Your task to perform on an android device: turn off location history Image 0: 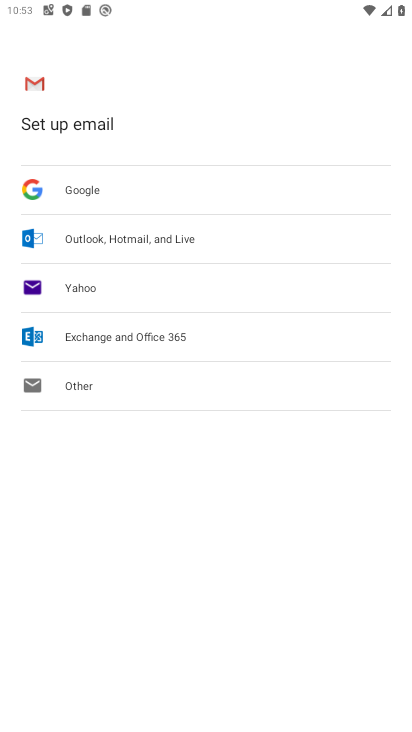
Step 0: press home button
Your task to perform on an android device: turn off location history Image 1: 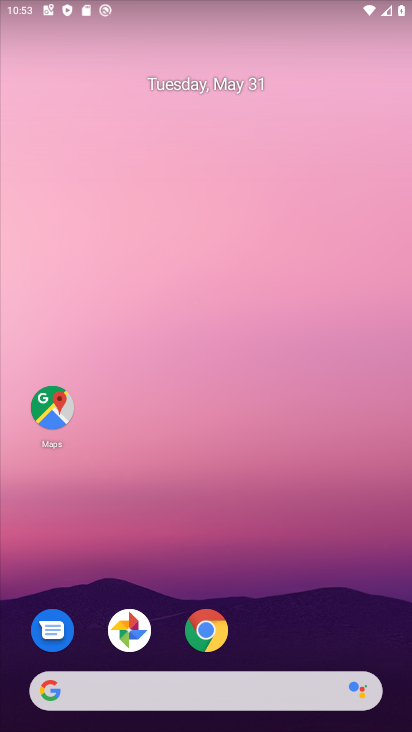
Step 1: drag from (238, 580) to (166, 106)
Your task to perform on an android device: turn off location history Image 2: 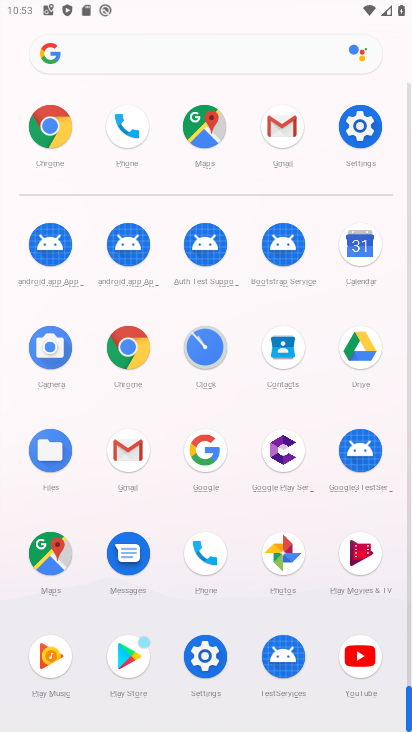
Step 2: click (121, 343)
Your task to perform on an android device: turn off location history Image 3: 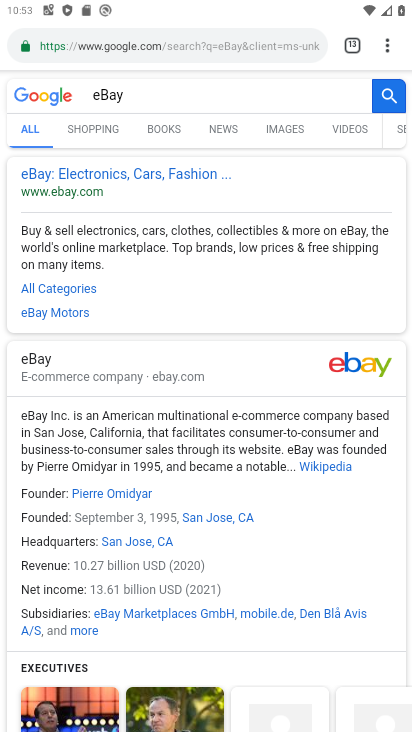
Step 3: click (394, 42)
Your task to perform on an android device: turn off location history Image 4: 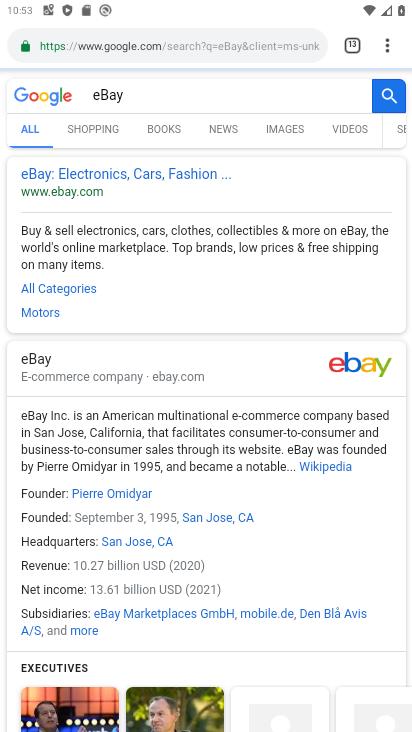
Step 4: click (388, 40)
Your task to perform on an android device: turn off location history Image 5: 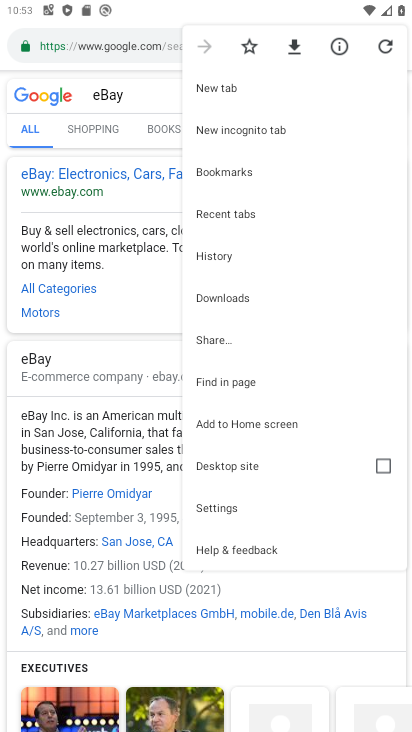
Step 5: click (250, 507)
Your task to perform on an android device: turn off location history Image 6: 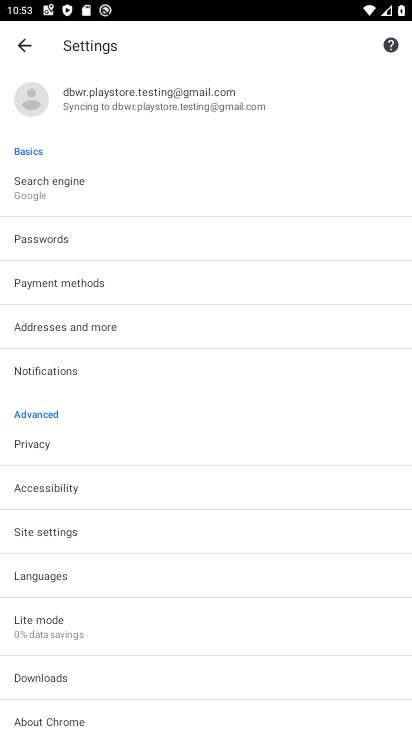
Step 6: click (78, 536)
Your task to perform on an android device: turn off location history Image 7: 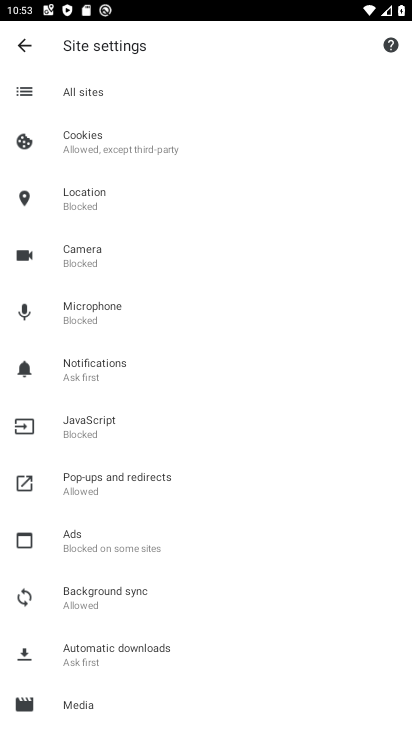
Step 7: press home button
Your task to perform on an android device: turn off location history Image 8: 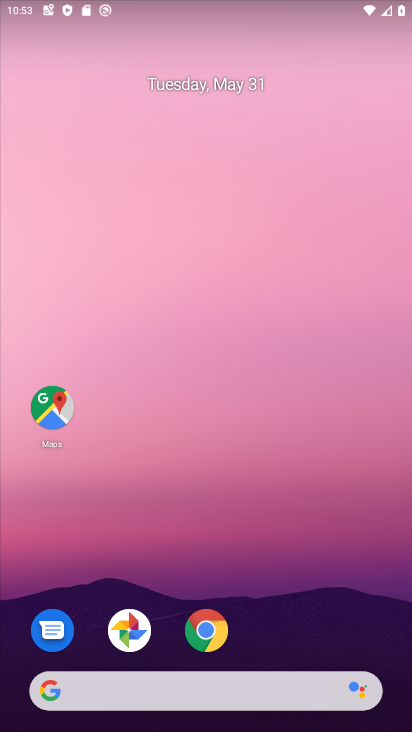
Step 8: drag from (281, 636) to (325, 135)
Your task to perform on an android device: turn off location history Image 9: 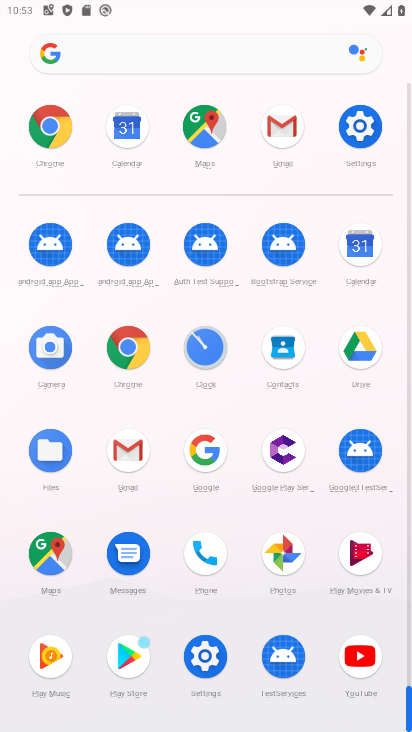
Step 9: click (363, 124)
Your task to perform on an android device: turn off location history Image 10: 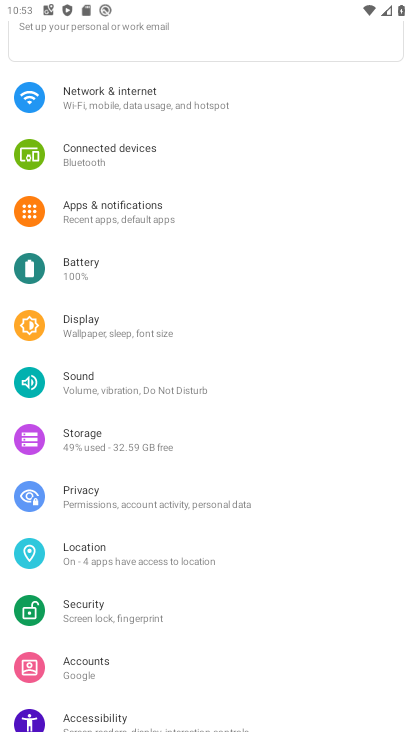
Step 10: drag from (128, 523) to (158, 315)
Your task to perform on an android device: turn off location history Image 11: 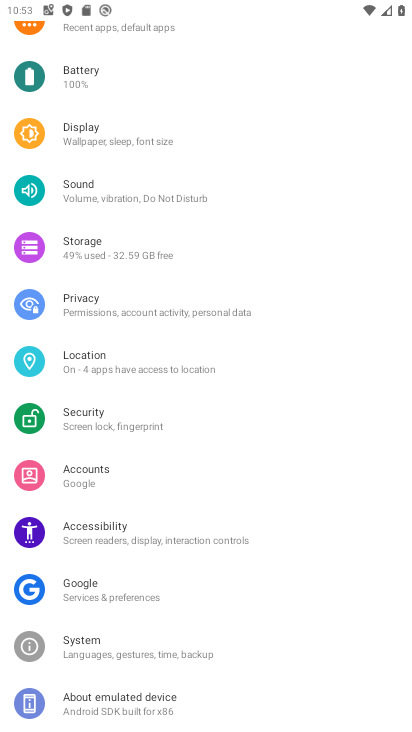
Step 11: click (113, 357)
Your task to perform on an android device: turn off location history Image 12: 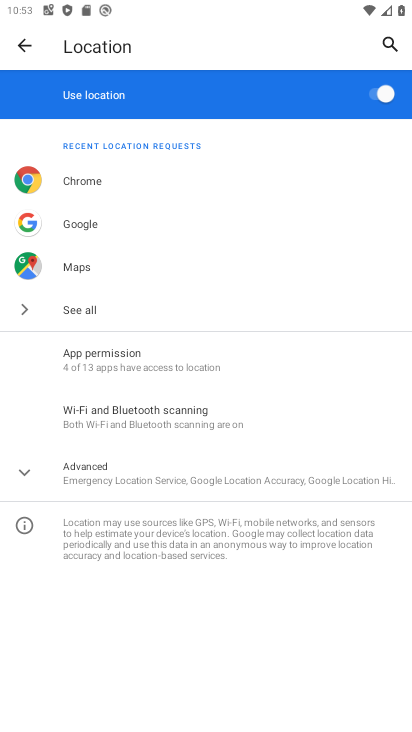
Step 12: click (127, 473)
Your task to perform on an android device: turn off location history Image 13: 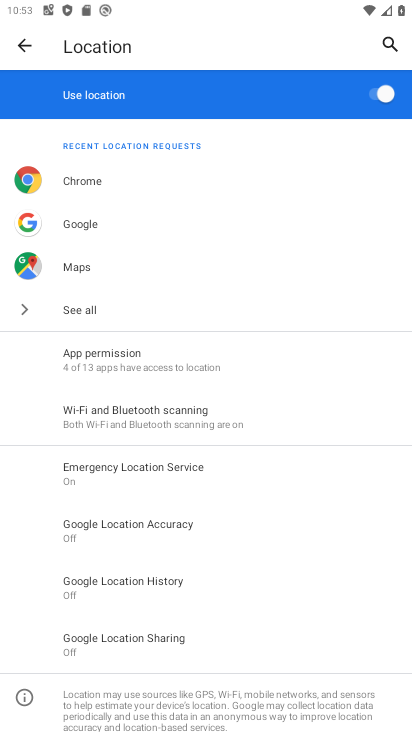
Step 13: click (162, 578)
Your task to perform on an android device: turn off location history Image 14: 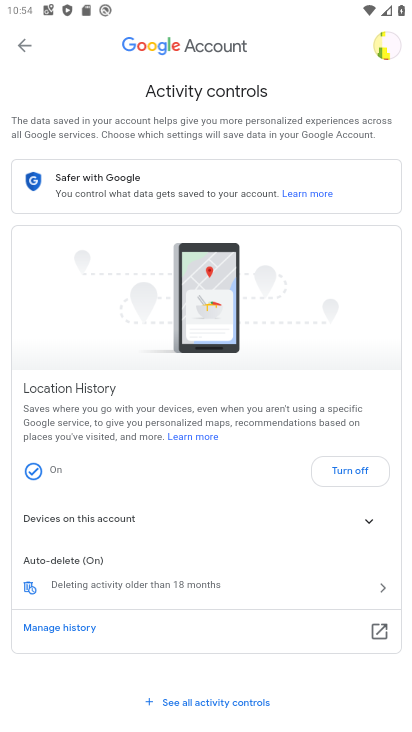
Step 14: drag from (228, 528) to (255, 291)
Your task to perform on an android device: turn off location history Image 15: 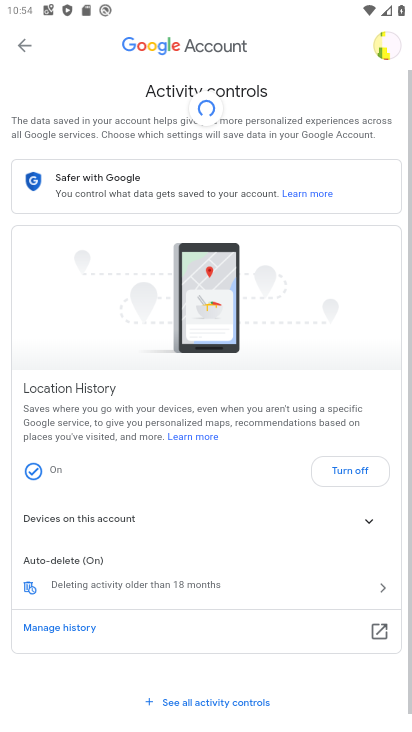
Step 15: click (333, 439)
Your task to perform on an android device: turn off location history Image 16: 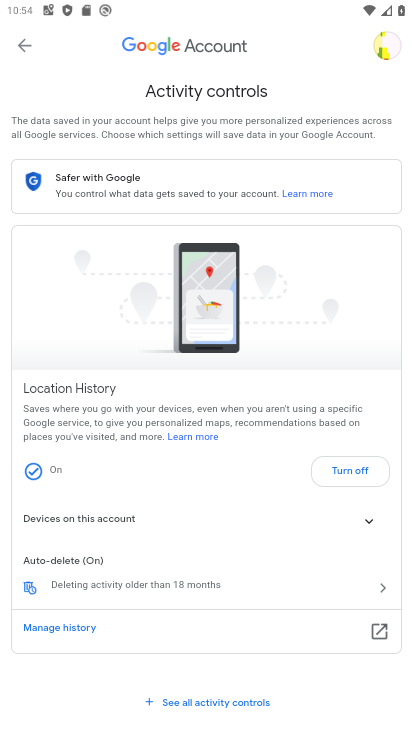
Step 16: click (331, 469)
Your task to perform on an android device: turn off location history Image 17: 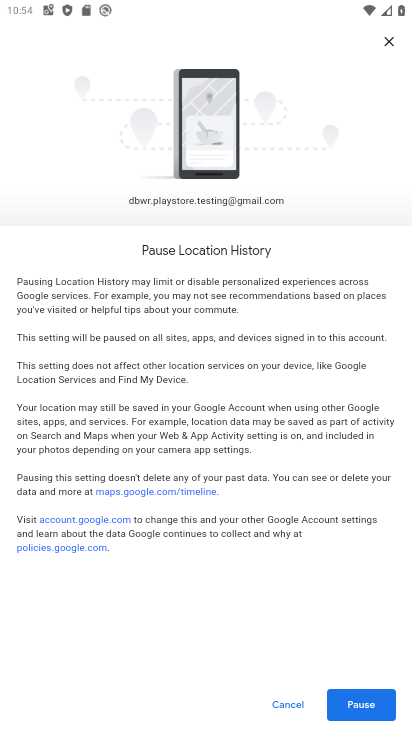
Step 17: task complete